Your task to perform on an android device: Go to notification settings Image 0: 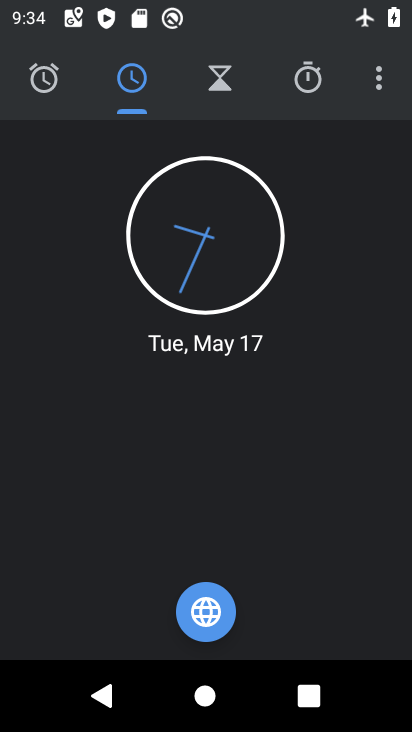
Step 0: press home button
Your task to perform on an android device: Go to notification settings Image 1: 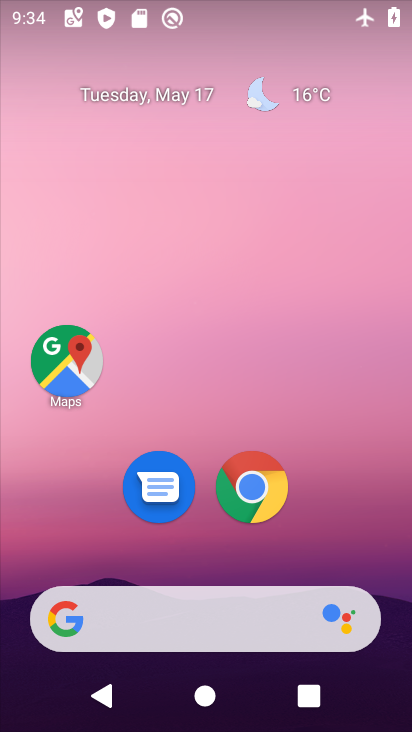
Step 1: drag from (189, 550) to (219, 4)
Your task to perform on an android device: Go to notification settings Image 2: 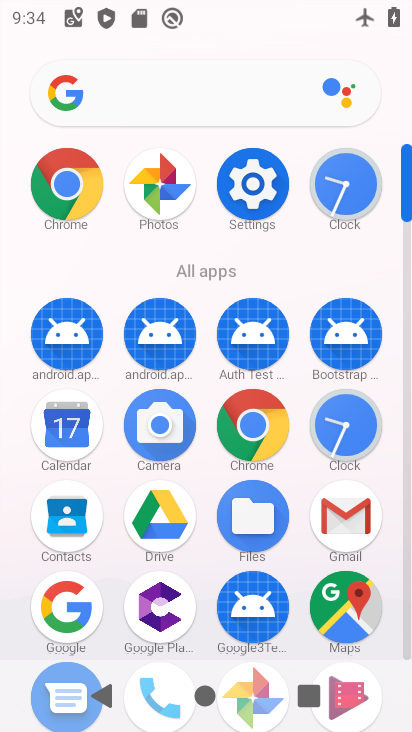
Step 2: click (265, 196)
Your task to perform on an android device: Go to notification settings Image 3: 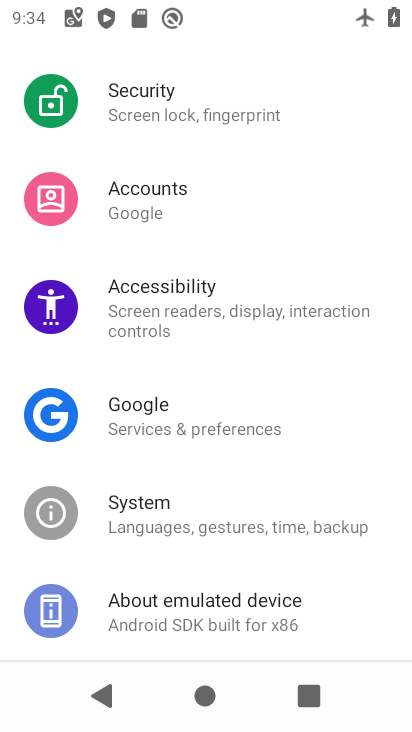
Step 3: drag from (216, 202) to (201, 599)
Your task to perform on an android device: Go to notification settings Image 4: 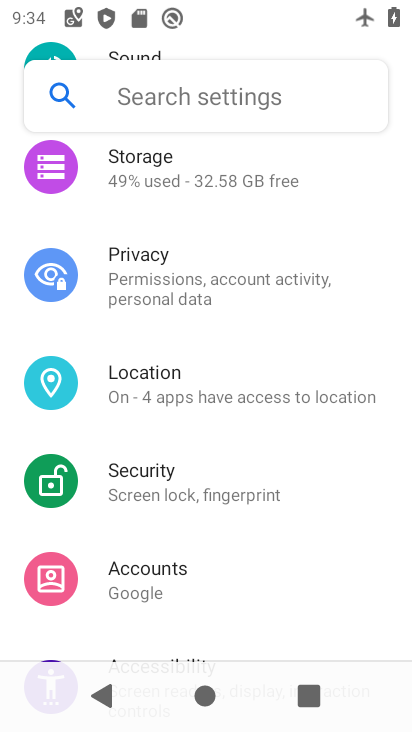
Step 4: drag from (193, 319) to (181, 645)
Your task to perform on an android device: Go to notification settings Image 5: 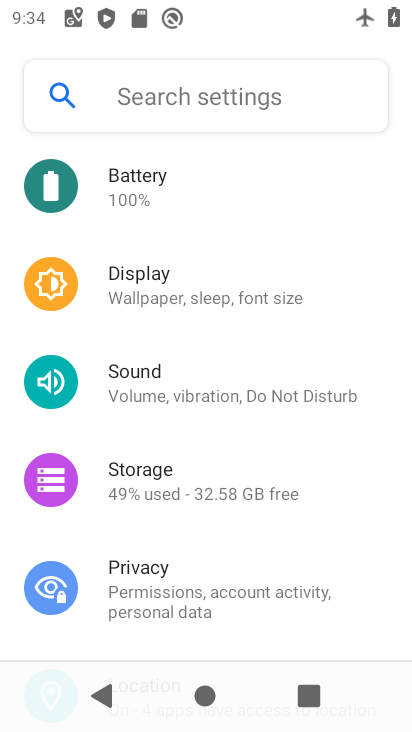
Step 5: drag from (216, 238) to (169, 629)
Your task to perform on an android device: Go to notification settings Image 6: 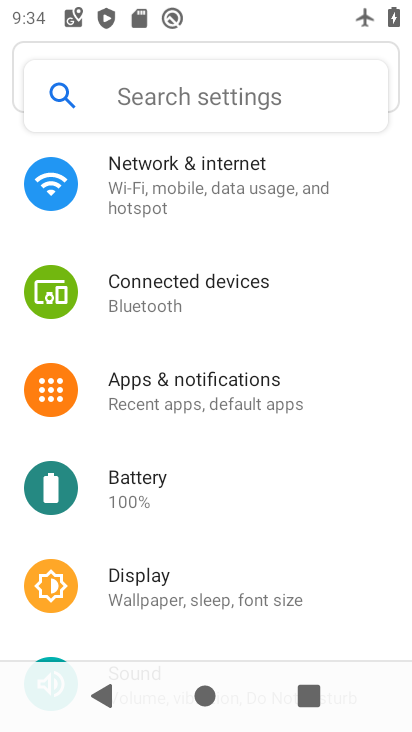
Step 6: click (190, 398)
Your task to perform on an android device: Go to notification settings Image 7: 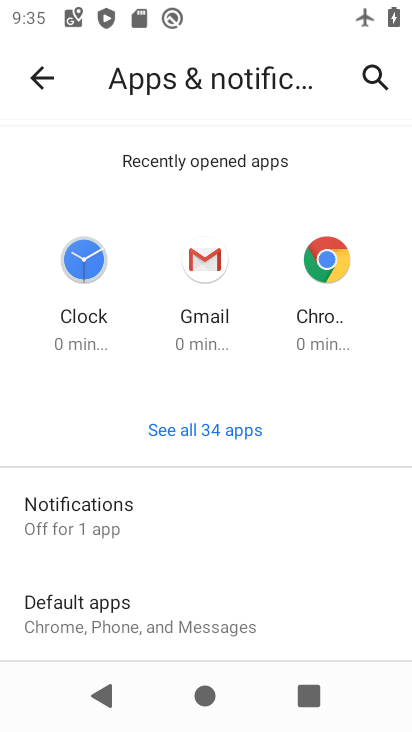
Step 7: click (143, 522)
Your task to perform on an android device: Go to notification settings Image 8: 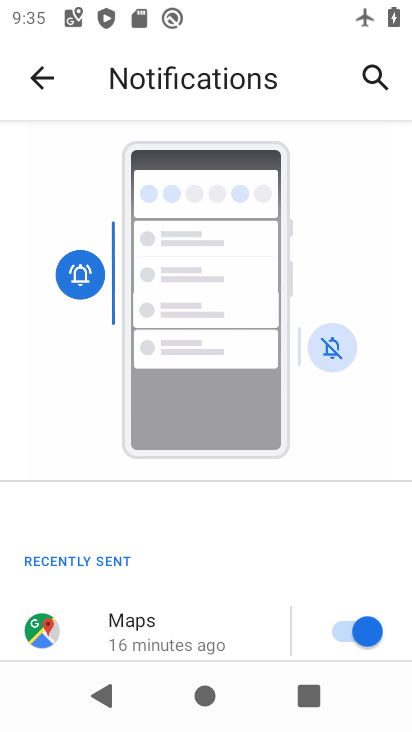
Step 8: task complete